Your task to perform on an android device: turn notification dots off Image 0: 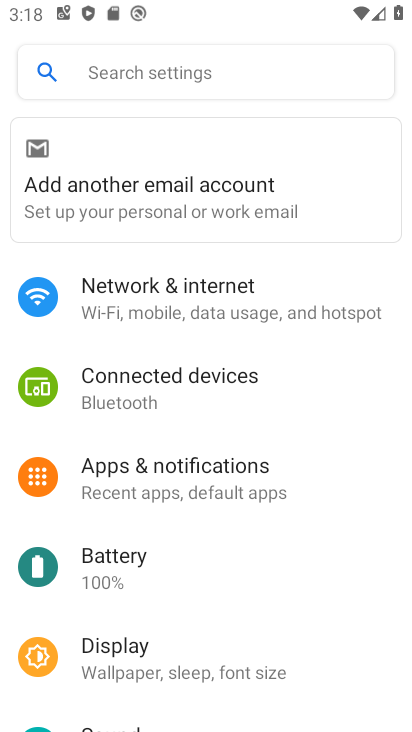
Step 0: press home button
Your task to perform on an android device: turn notification dots off Image 1: 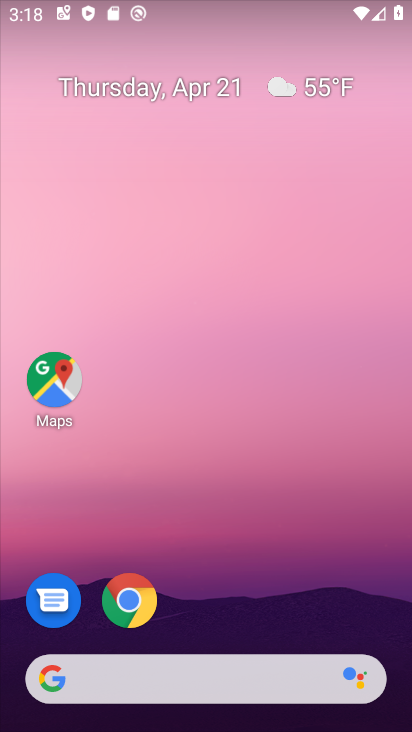
Step 1: drag from (159, 666) to (202, 135)
Your task to perform on an android device: turn notification dots off Image 2: 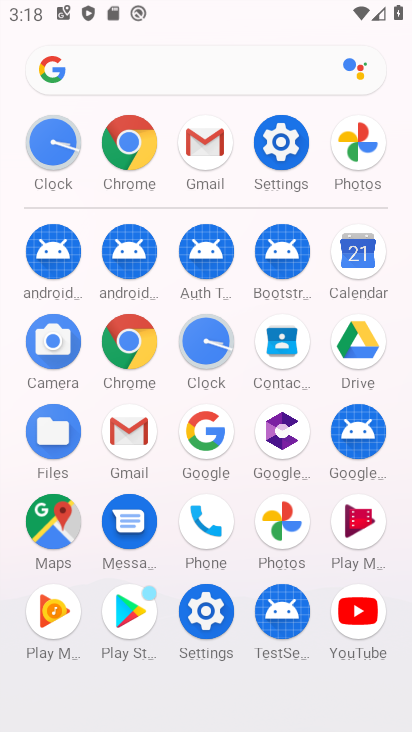
Step 2: click (283, 151)
Your task to perform on an android device: turn notification dots off Image 3: 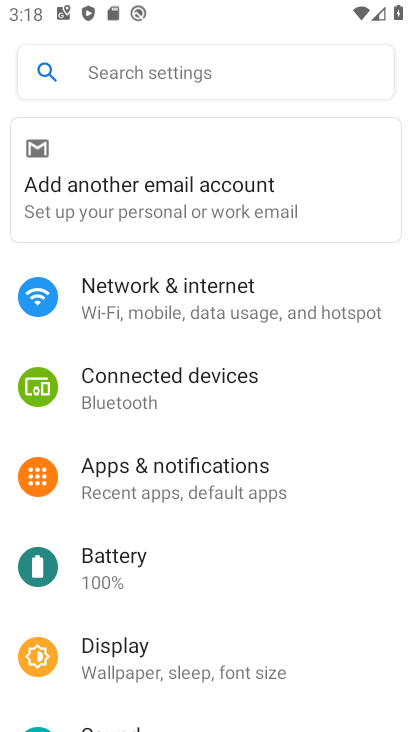
Step 3: click (184, 476)
Your task to perform on an android device: turn notification dots off Image 4: 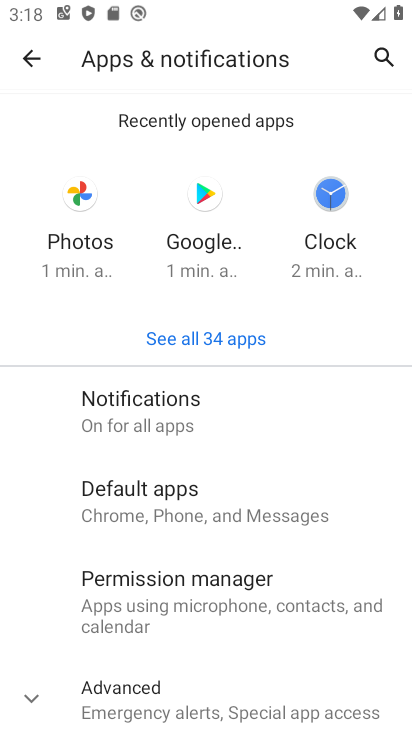
Step 4: click (159, 418)
Your task to perform on an android device: turn notification dots off Image 5: 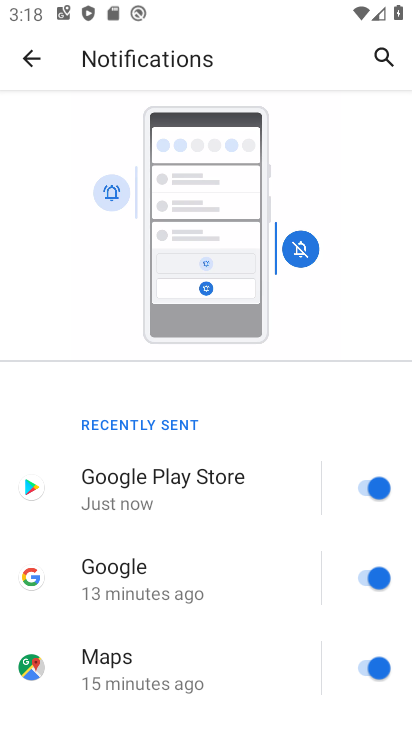
Step 5: drag from (197, 668) to (295, 370)
Your task to perform on an android device: turn notification dots off Image 6: 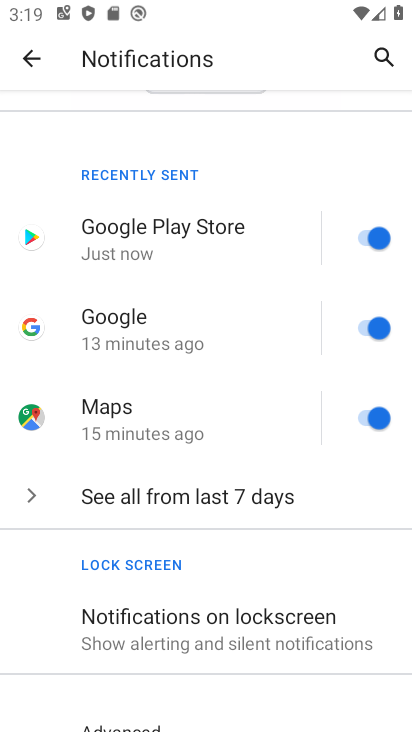
Step 6: drag from (178, 565) to (266, 270)
Your task to perform on an android device: turn notification dots off Image 7: 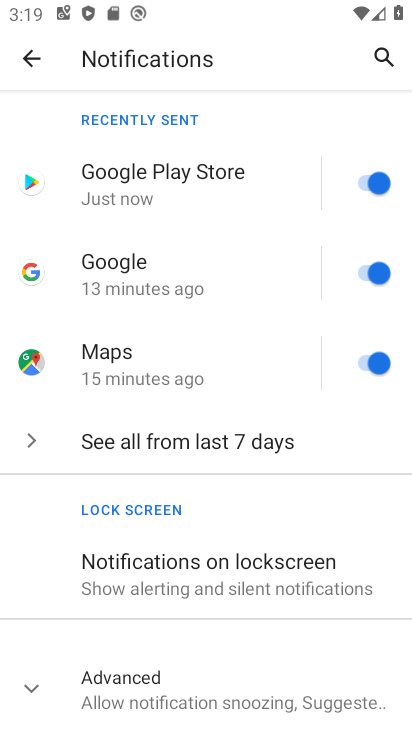
Step 7: click (123, 680)
Your task to perform on an android device: turn notification dots off Image 8: 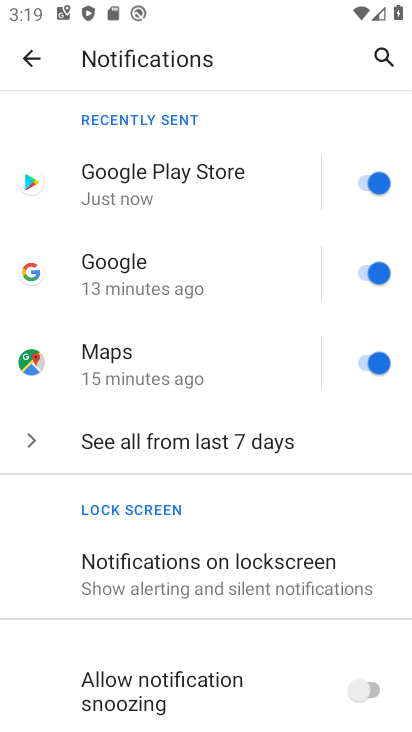
Step 8: drag from (167, 645) to (284, 288)
Your task to perform on an android device: turn notification dots off Image 9: 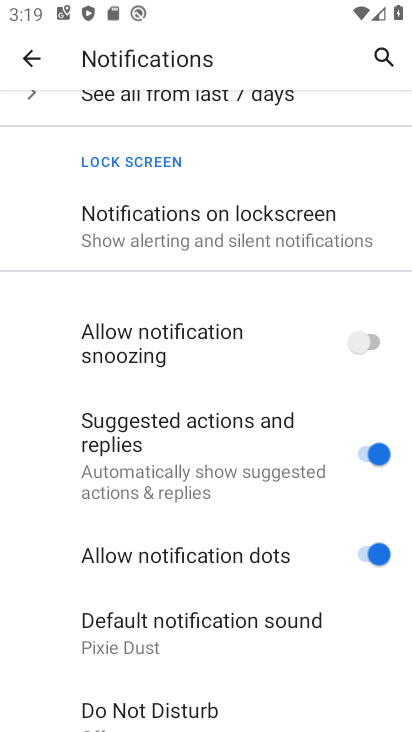
Step 9: click (366, 553)
Your task to perform on an android device: turn notification dots off Image 10: 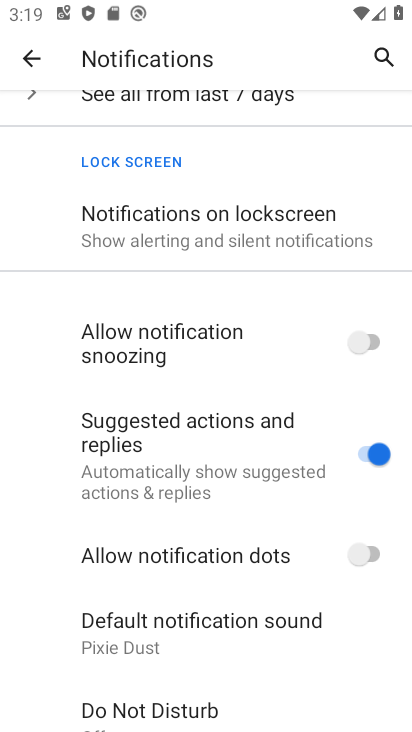
Step 10: task complete